Your task to perform on an android device: Open ESPN.com Image 0: 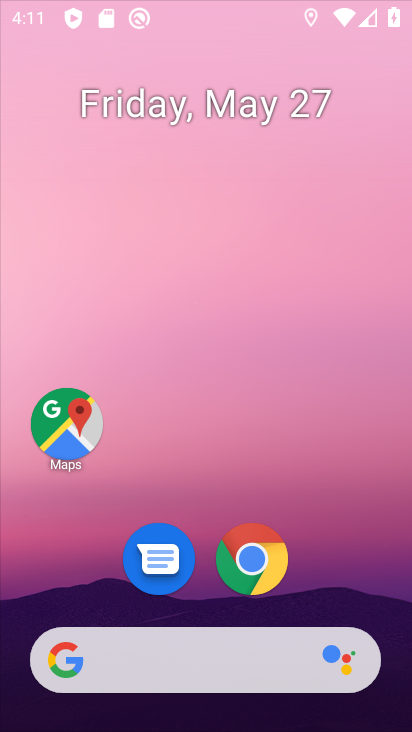
Step 0: click (79, 407)
Your task to perform on an android device: Open ESPN.com Image 1: 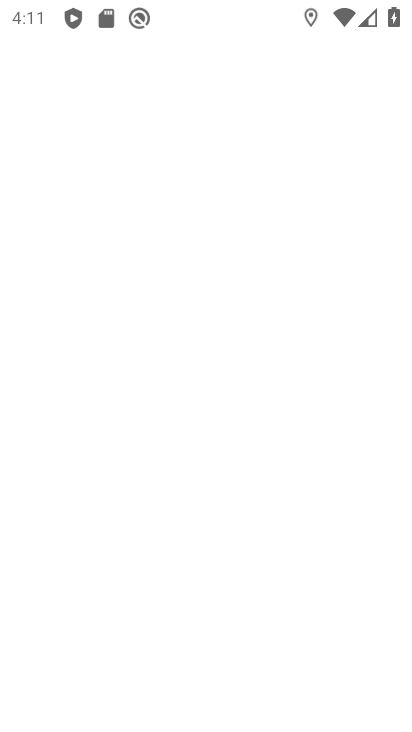
Step 1: press home button
Your task to perform on an android device: Open ESPN.com Image 2: 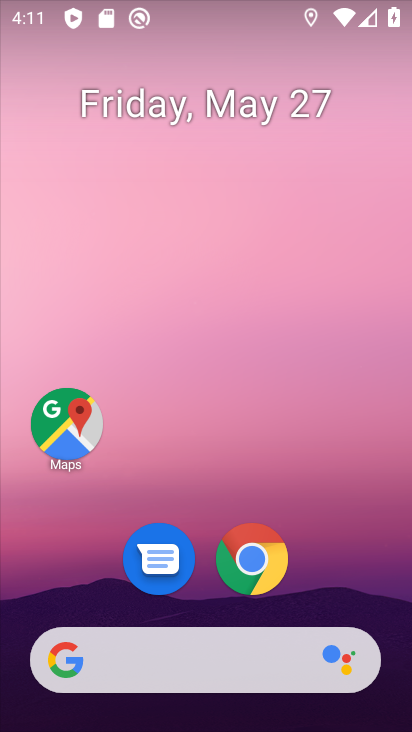
Step 2: click (262, 554)
Your task to perform on an android device: Open ESPN.com Image 3: 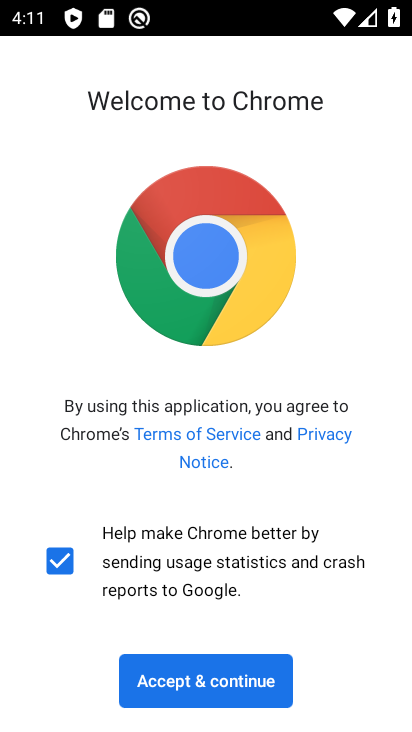
Step 3: click (276, 673)
Your task to perform on an android device: Open ESPN.com Image 4: 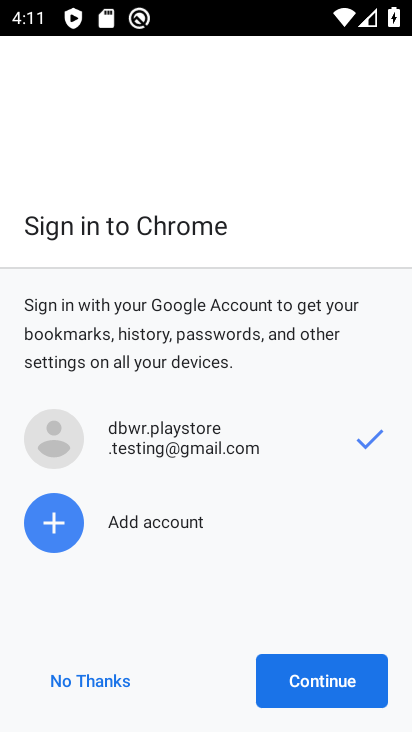
Step 4: click (281, 675)
Your task to perform on an android device: Open ESPN.com Image 5: 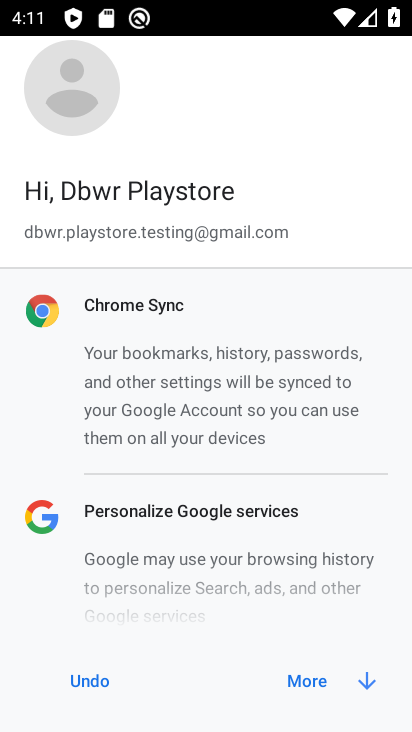
Step 5: click (322, 673)
Your task to perform on an android device: Open ESPN.com Image 6: 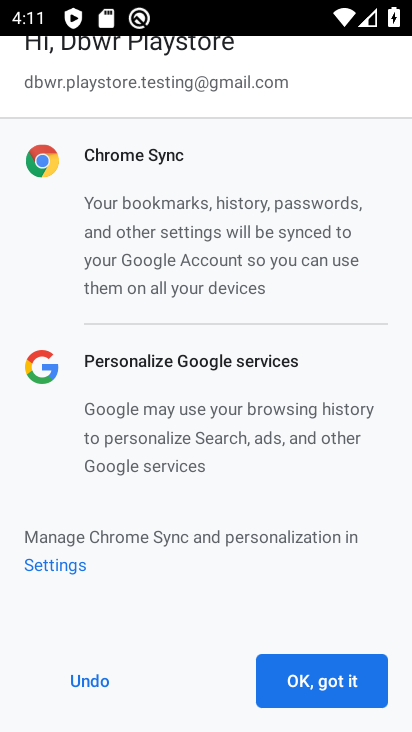
Step 6: click (320, 677)
Your task to perform on an android device: Open ESPN.com Image 7: 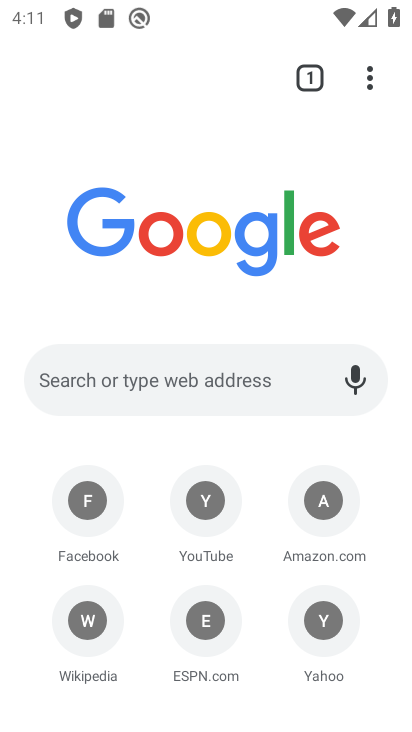
Step 7: click (109, 391)
Your task to perform on an android device: Open ESPN.com Image 8: 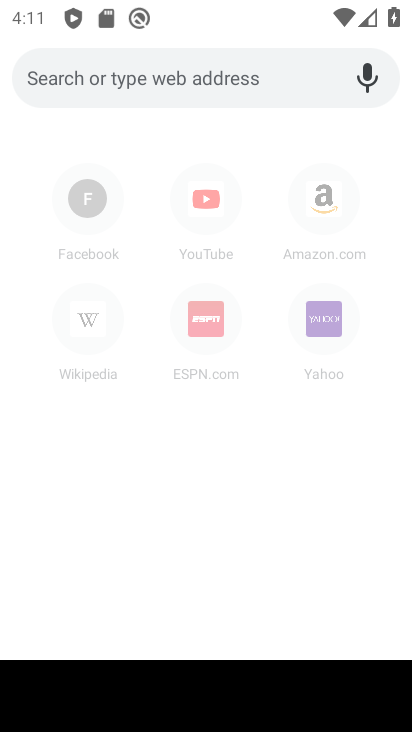
Step 8: type "ESPN.com"
Your task to perform on an android device: Open ESPN.com Image 9: 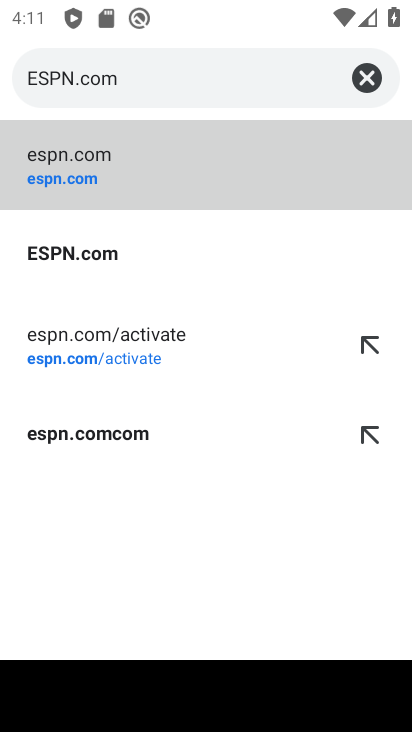
Step 9: click (59, 246)
Your task to perform on an android device: Open ESPN.com Image 10: 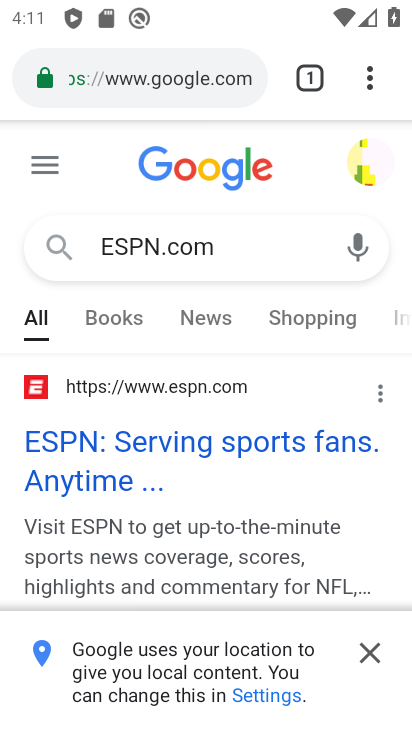
Step 10: task complete